Your task to perform on an android device: toggle pop-ups in chrome Image 0: 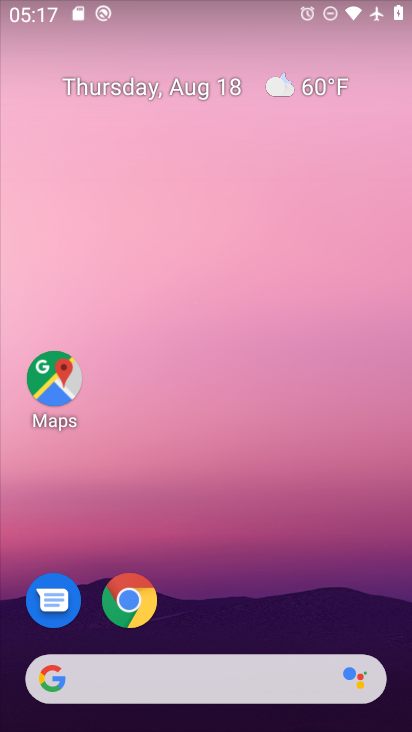
Step 0: press home button
Your task to perform on an android device: toggle pop-ups in chrome Image 1: 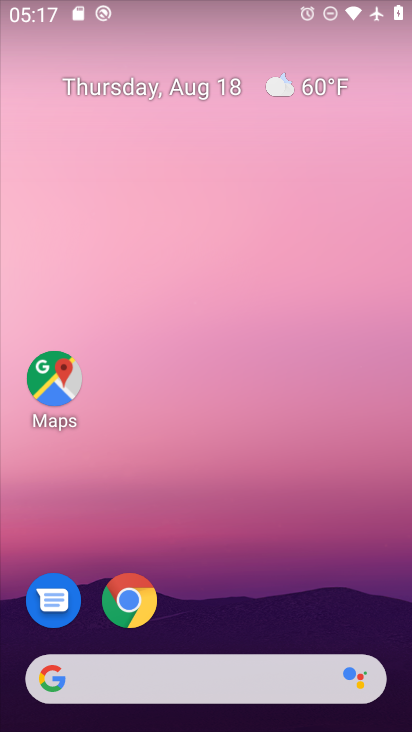
Step 1: click (128, 597)
Your task to perform on an android device: toggle pop-ups in chrome Image 2: 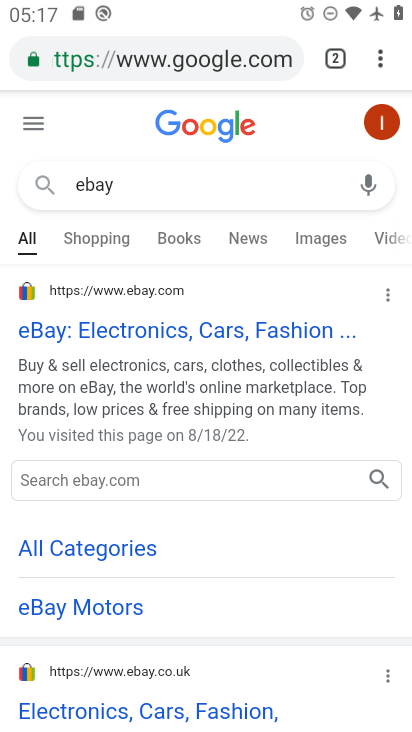
Step 2: drag from (387, 58) to (160, 644)
Your task to perform on an android device: toggle pop-ups in chrome Image 3: 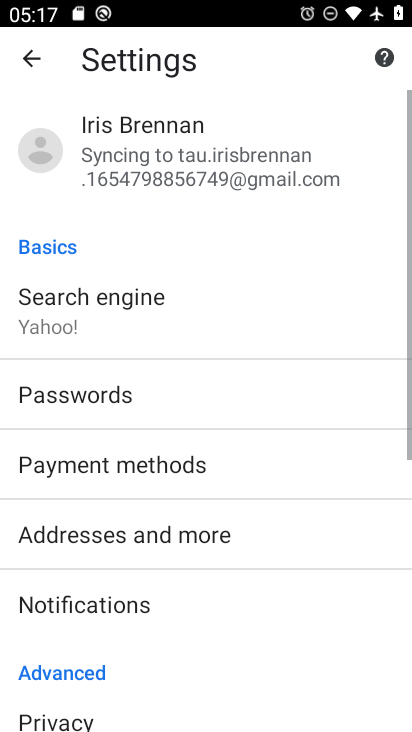
Step 3: drag from (231, 662) to (235, 92)
Your task to perform on an android device: toggle pop-ups in chrome Image 4: 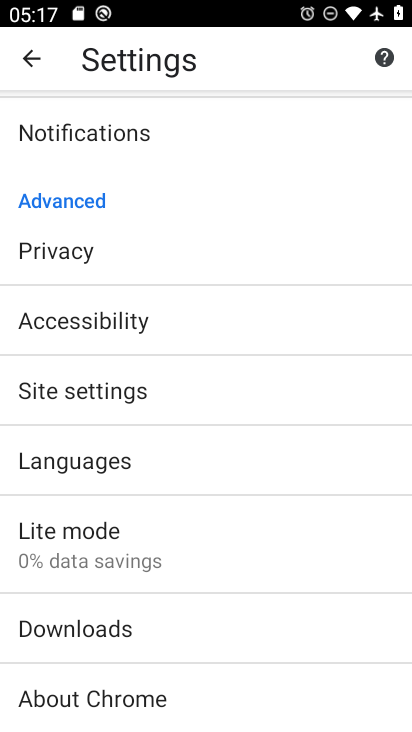
Step 4: click (51, 400)
Your task to perform on an android device: toggle pop-ups in chrome Image 5: 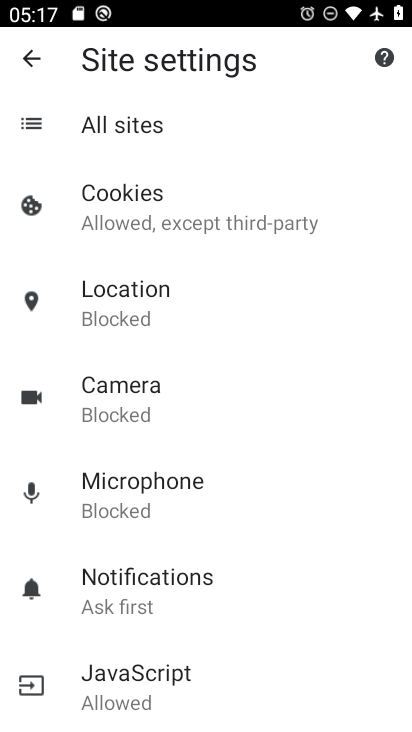
Step 5: drag from (312, 654) to (323, 271)
Your task to perform on an android device: toggle pop-ups in chrome Image 6: 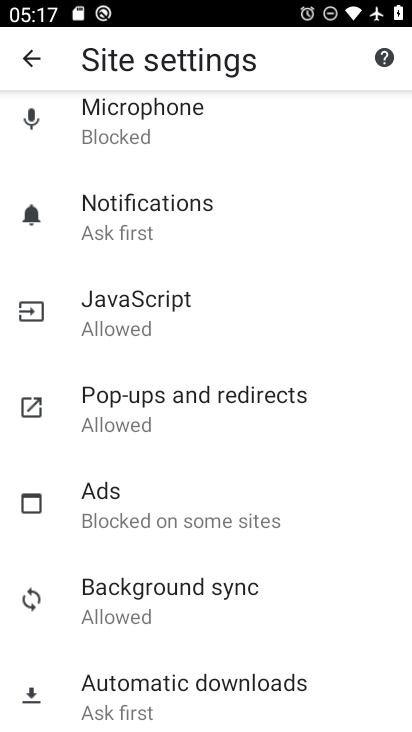
Step 6: click (109, 414)
Your task to perform on an android device: toggle pop-ups in chrome Image 7: 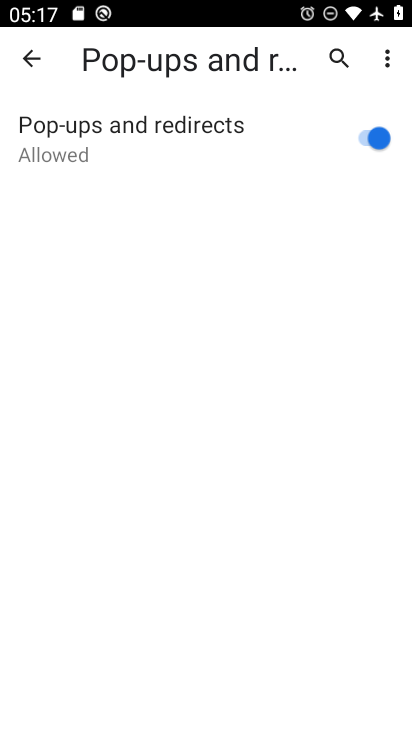
Step 7: click (380, 143)
Your task to perform on an android device: toggle pop-ups in chrome Image 8: 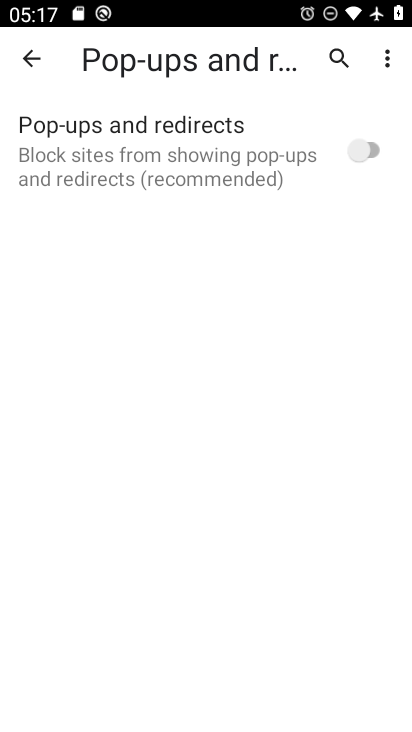
Step 8: task complete